Your task to perform on an android device: add a contact Image 0: 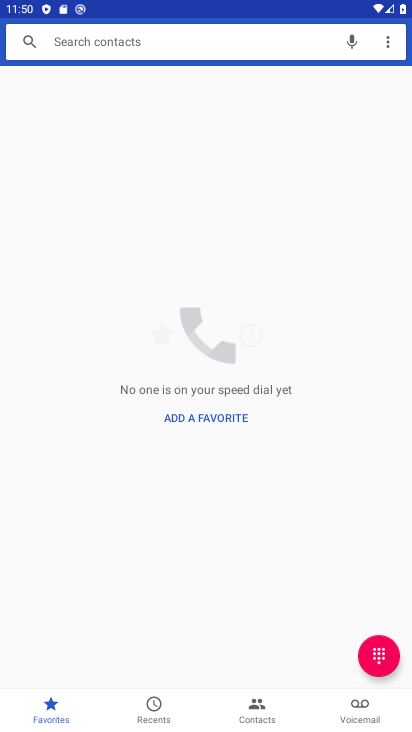
Step 0: press back button
Your task to perform on an android device: add a contact Image 1: 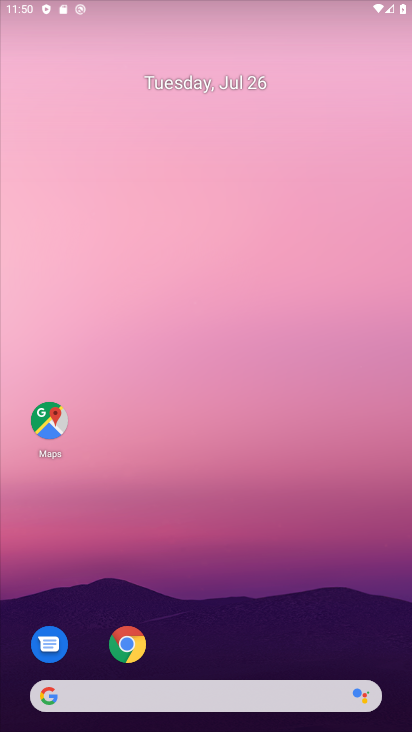
Step 1: drag from (224, 610) to (171, 38)
Your task to perform on an android device: add a contact Image 2: 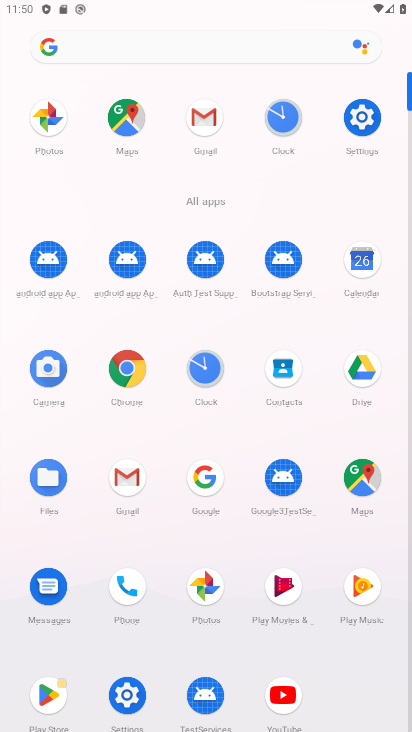
Step 2: click (282, 363)
Your task to perform on an android device: add a contact Image 3: 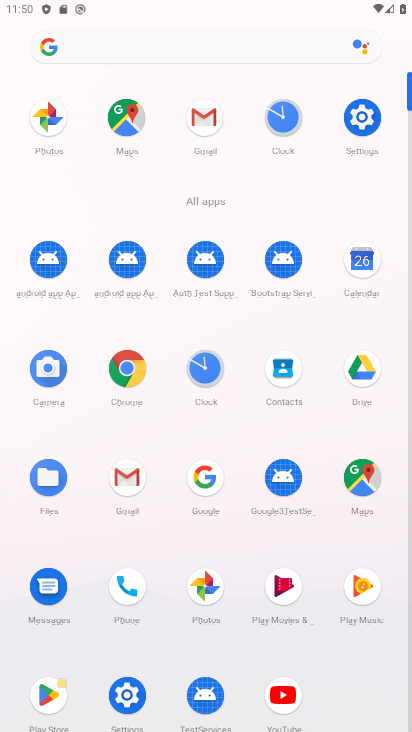
Step 3: click (282, 363)
Your task to perform on an android device: add a contact Image 4: 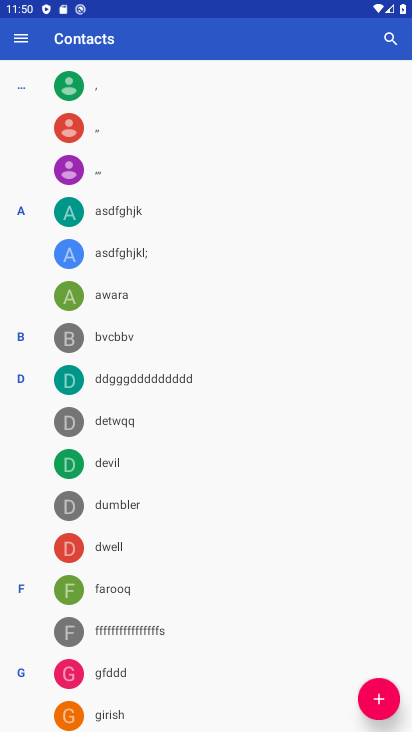
Step 4: click (376, 696)
Your task to perform on an android device: add a contact Image 5: 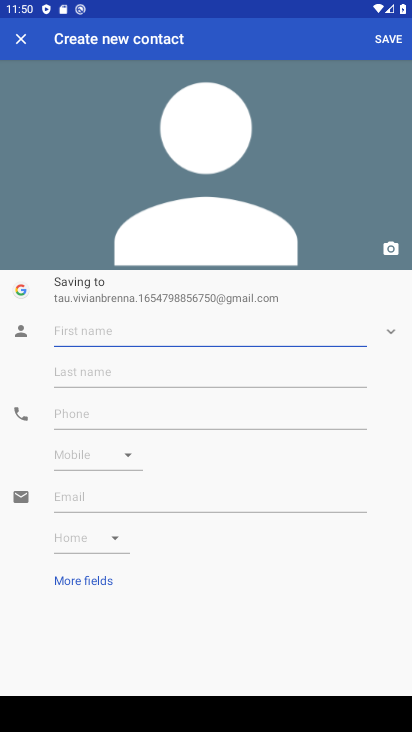
Step 5: click (59, 338)
Your task to perform on an android device: add a contact Image 6: 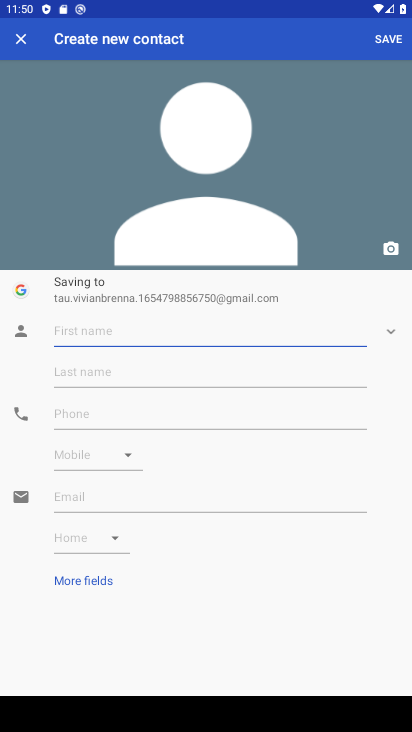
Step 6: type "b cckjnjzdjk"
Your task to perform on an android device: add a contact Image 7: 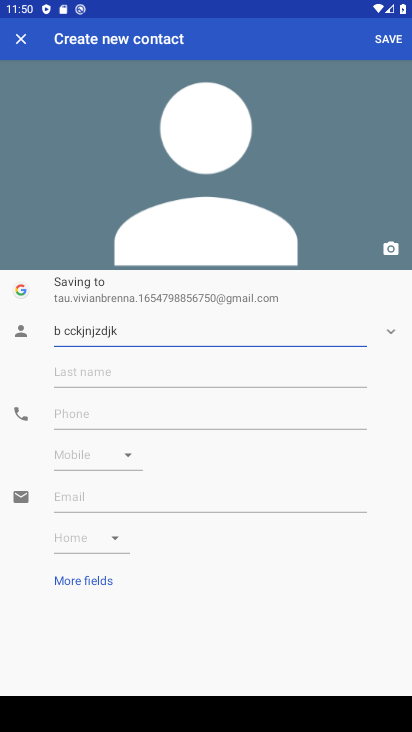
Step 7: click (69, 422)
Your task to perform on an android device: add a contact Image 8: 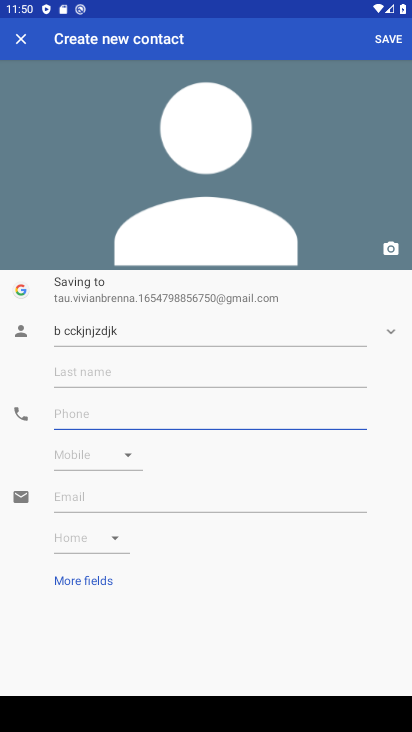
Step 8: type "5475894884e8tt48t"
Your task to perform on an android device: add a contact Image 9: 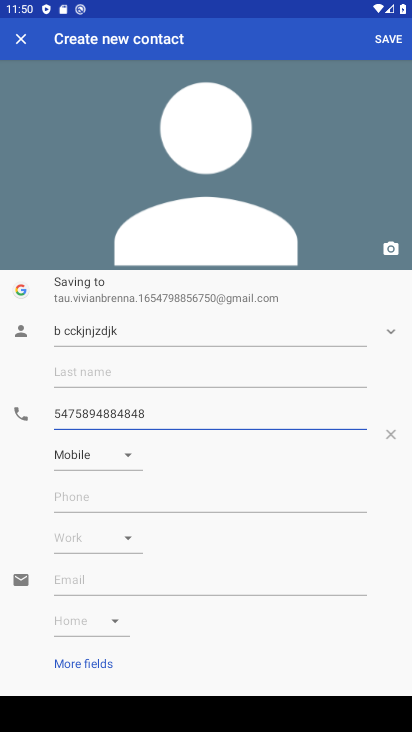
Step 9: click (384, 35)
Your task to perform on an android device: add a contact Image 10: 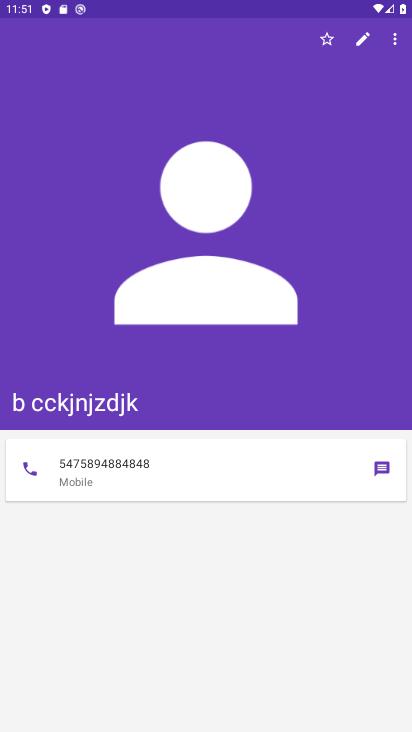
Step 10: task complete